Your task to perform on an android device: Open privacy settings Image 0: 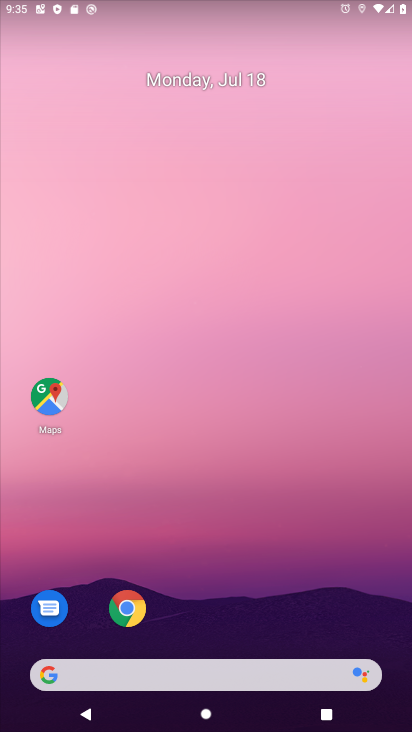
Step 0: drag from (47, 606) to (167, 194)
Your task to perform on an android device: Open privacy settings Image 1: 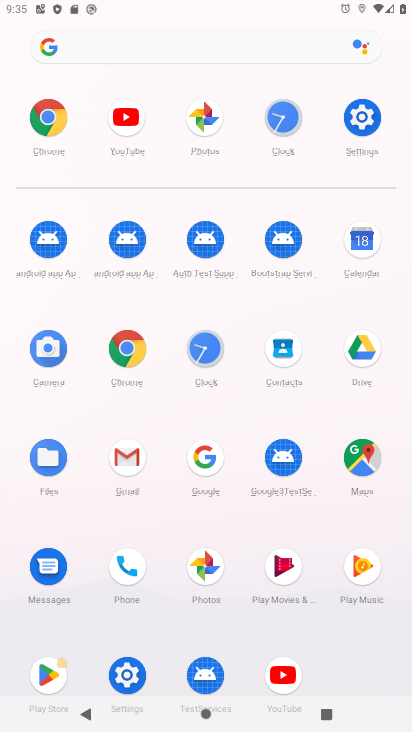
Step 1: click (127, 674)
Your task to perform on an android device: Open privacy settings Image 2: 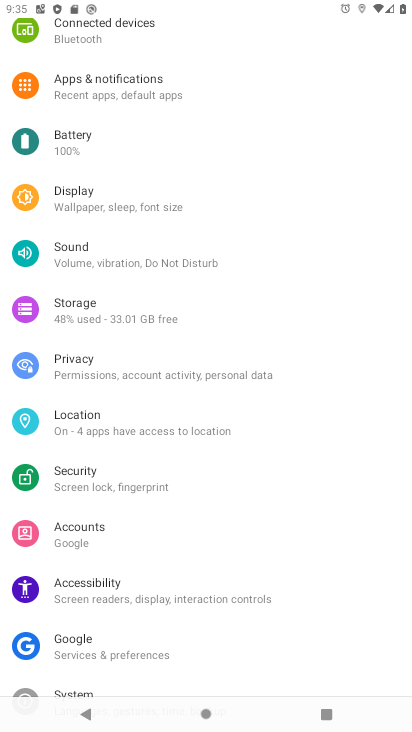
Step 2: click (98, 369)
Your task to perform on an android device: Open privacy settings Image 3: 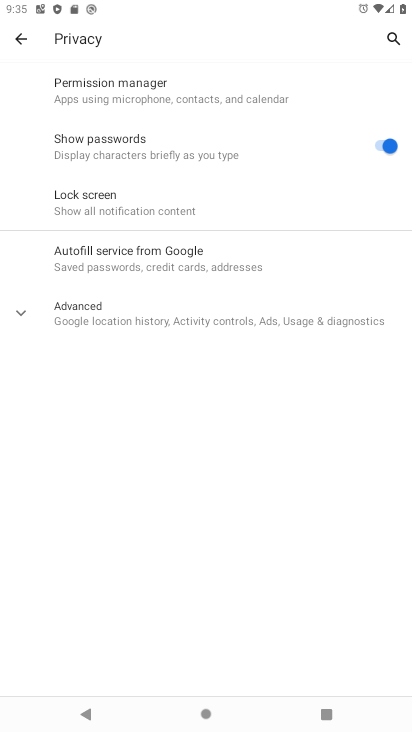
Step 3: task complete